Your task to perform on an android device: allow cookies in the chrome app Image 0: 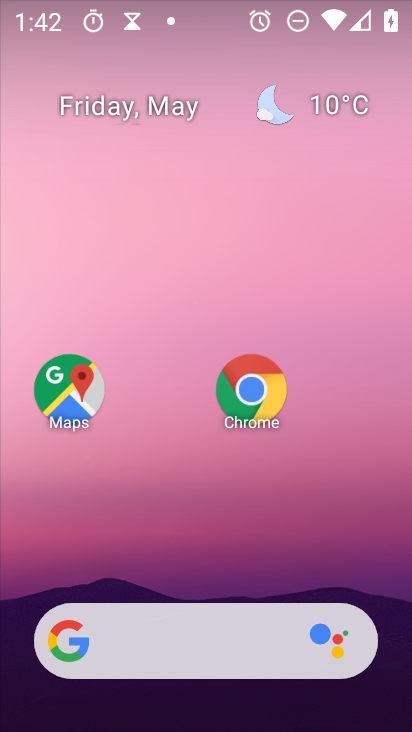
Step 0: press home button
Your task to perform on an android device: allow cookies in the chrome app Image 1: 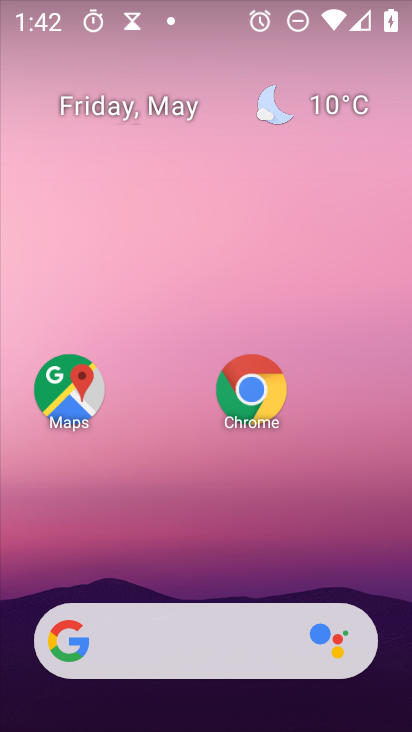
Step 1: drag from (143, 654) to (298, 198)
Your task to perform on an android device: allow cookies in the chrome app Image 2: 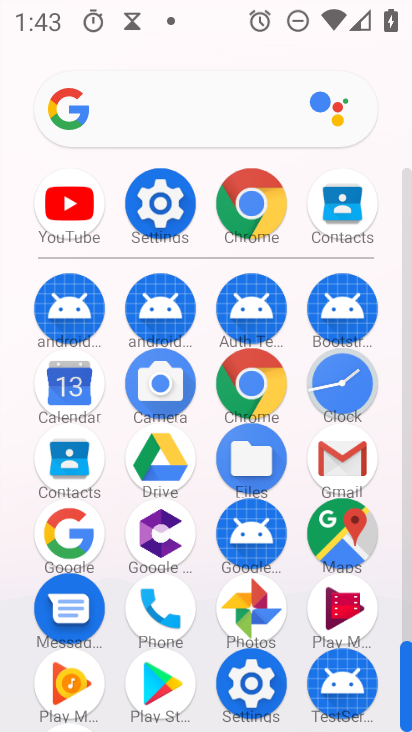
Step 2: click (242, 216)
Your task to perform on an android device: allow cookies in the chrome app Image 3: 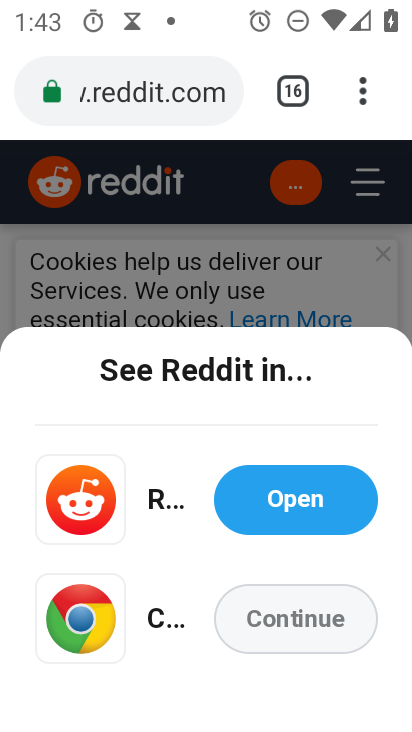
Step 3: drag from (359, 97) to (205, 574)
Your task to perform on an android device: allow cookies in the chrome app Image 4: 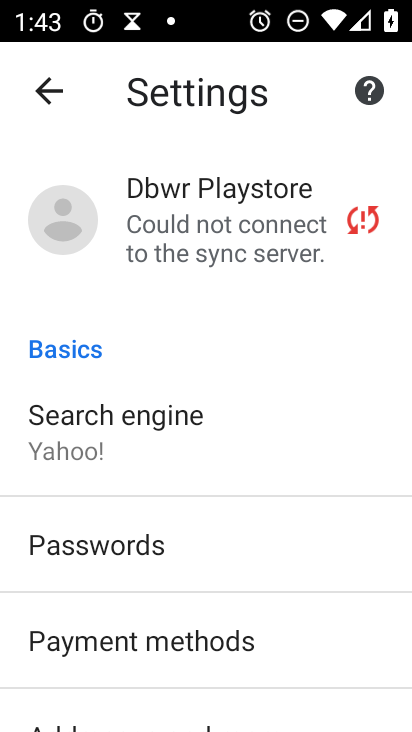
Step 4: drag from (207, 566) to (352, 20)
Your task to perform on an android device: allow cookies in the chrome app Image 5: 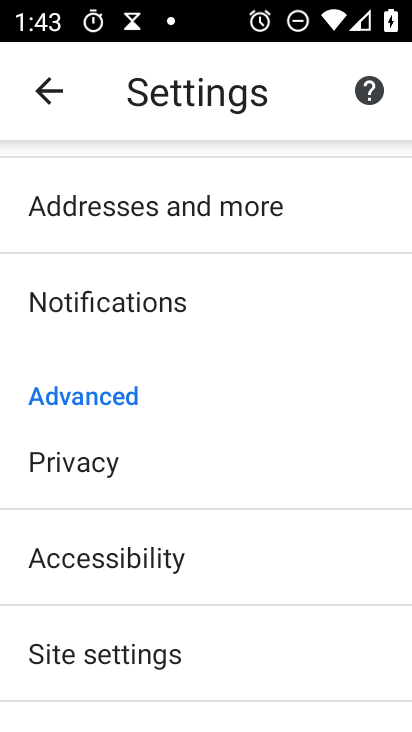
Step 5: click (99, 649)
Your task to perform on an android device: allow cookies in the chrome app Image 6: 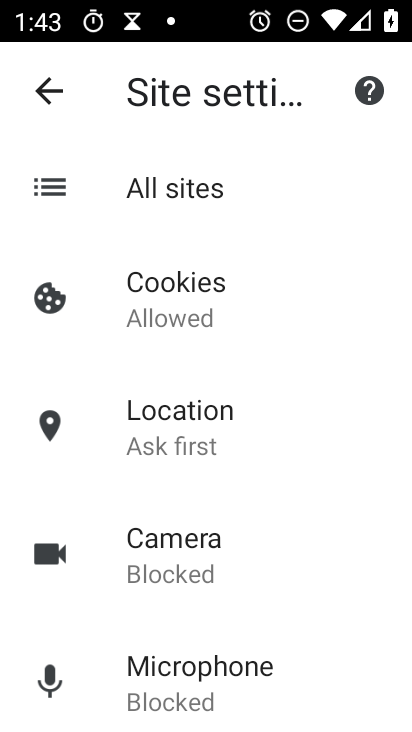
Step 6: click (195, 318)
Your task to perform on an android device: allow cookies in the chrome app Image 7: 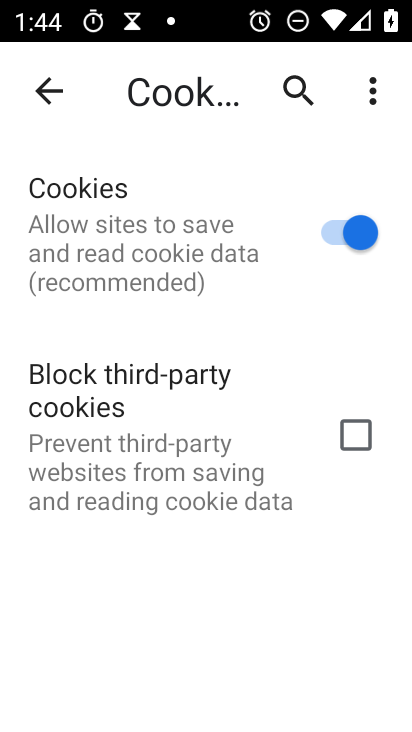
Step 7: task complete